Your task to perform on an android device: show emergency info Image 0: 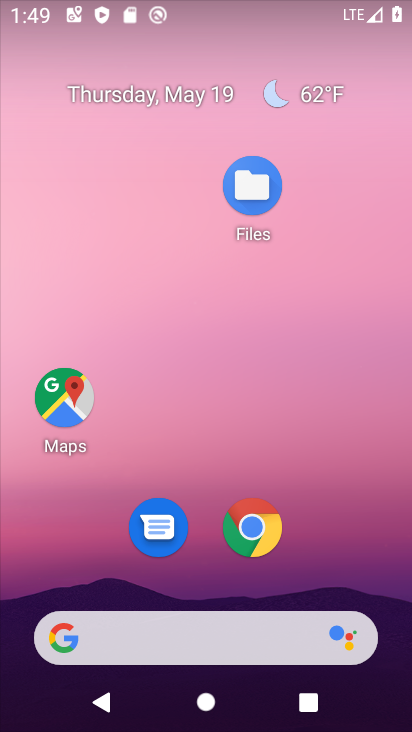
Step 0: drag from (338, 540) to (368, 110)
Your task to perform on an android device: show emergency info Image 1: 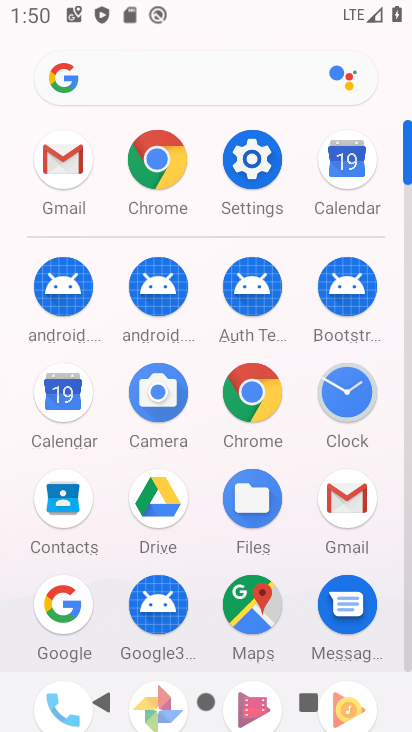
Step 1: drag from (299, 515) to (316, 264)
Your task to perform on an android device: show emergency info Image 2: 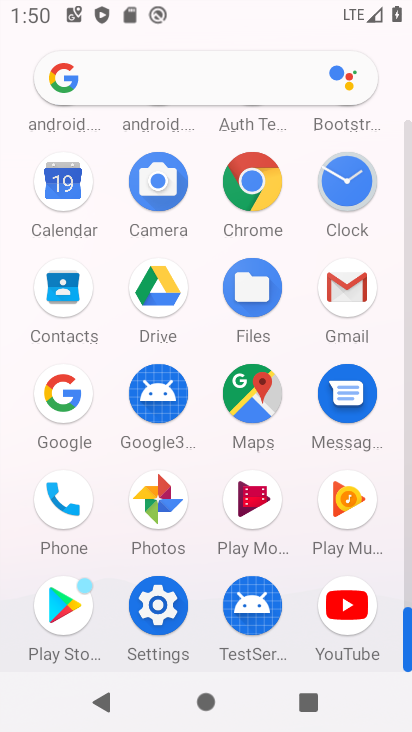
Step 2: click (155, 612)
Your task to perform on an android device: show emergency info Image 3: 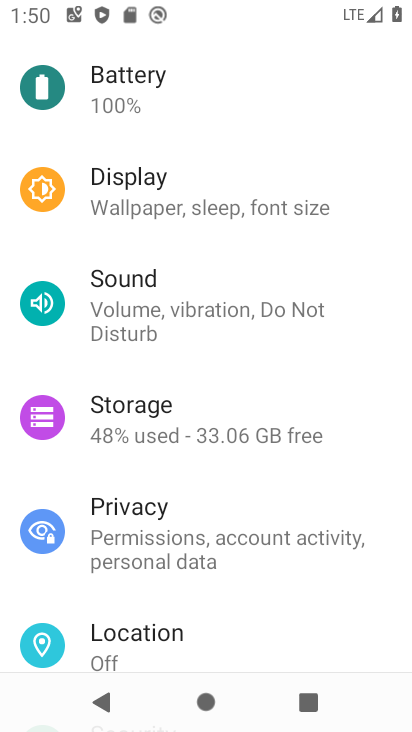
Step 3: drag from (235, 571) to (264, 147)
Your task to perform on an android device: show emergency info Image 4: 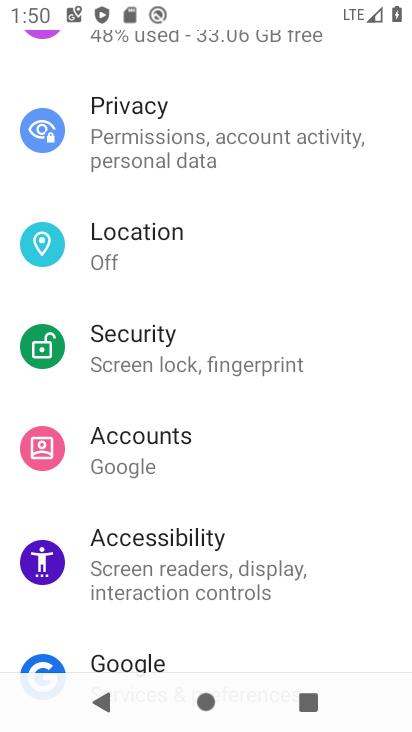
Step 4: drag from (286, 561) to (260, 230)
Your task to perform on an android device: show emergency info Image 5: 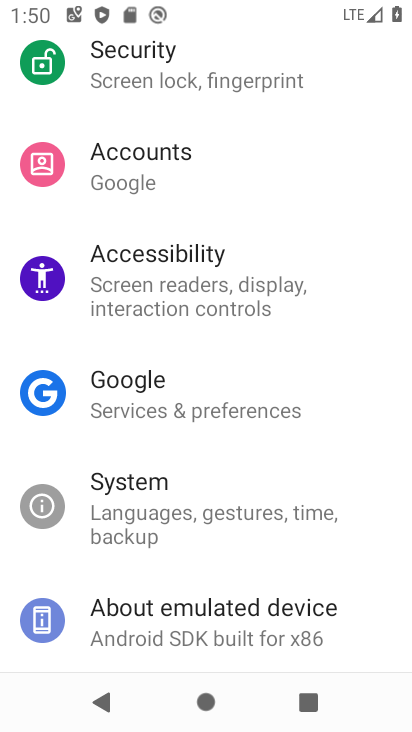
Step 5: click (252, 588)
Your task to perform on an android device: show emergency info Image 6: 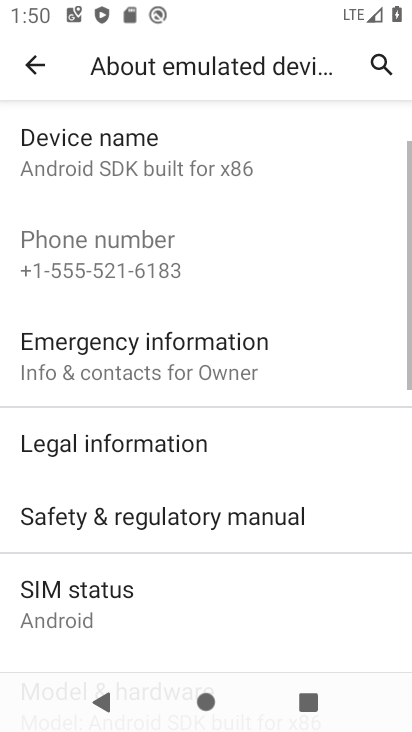
Step 6: click (210, 366)
Your task to perform on an android device: show emergency info Image 7: 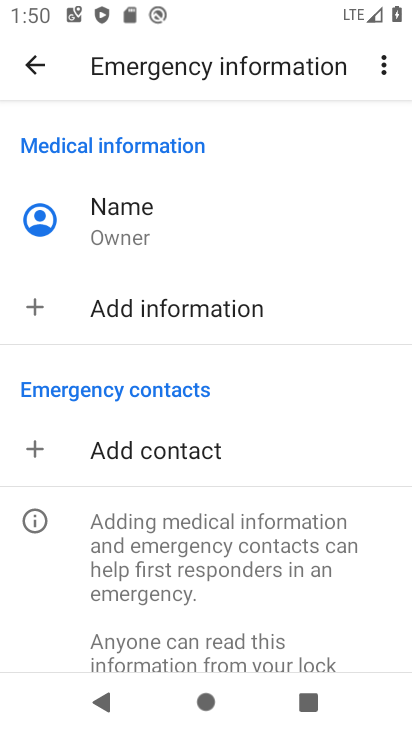
Step 7: task complete